Your task to perform on an android device: Open Google Image 0: 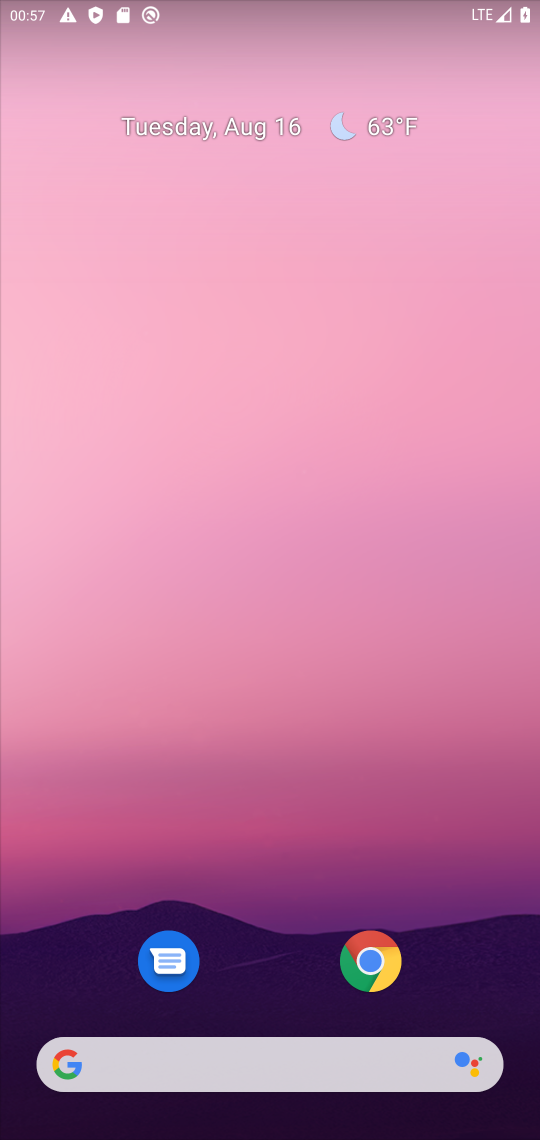
Step 0: press home button
Your task to perform on an android device: Open Google Image 1: 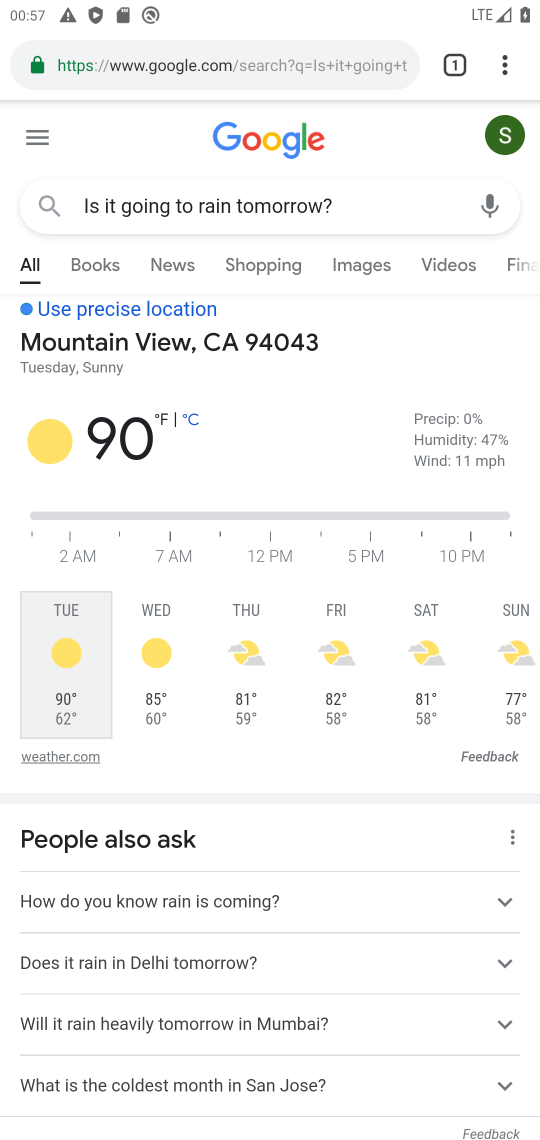
Step 1: press home button
Your task to perform on an android device: Open Google Image 2: 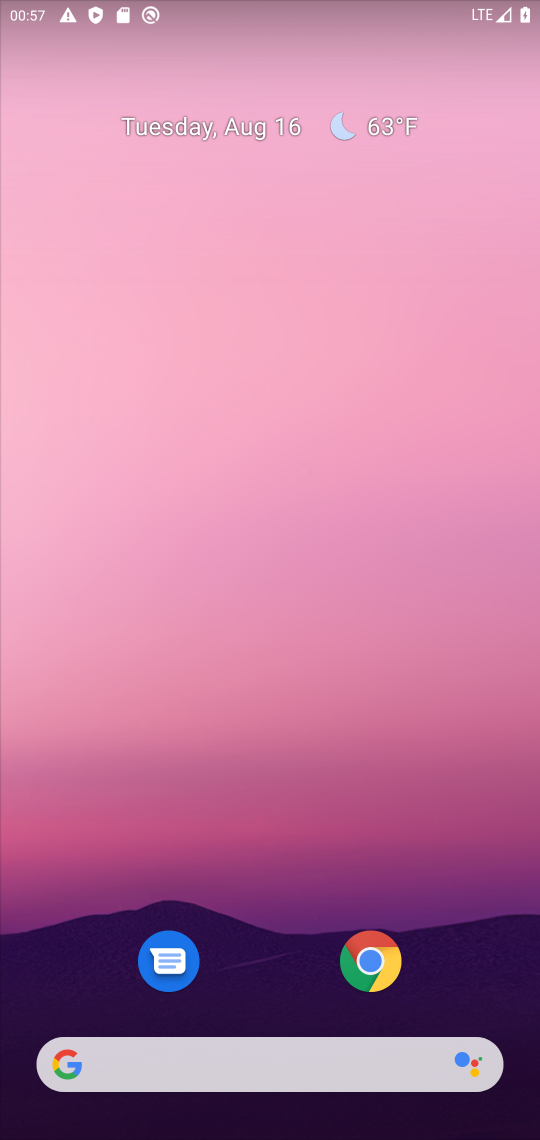
Step 2: press home button
Your task to perform on an android device: Open Google Image 3: 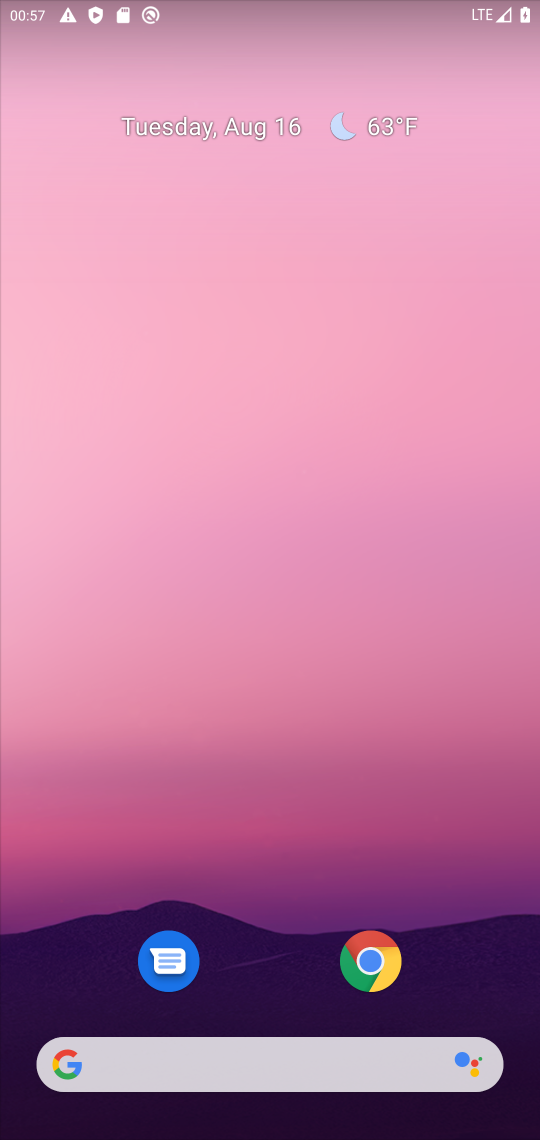
Step 3: drag from (313, 131) to (331, 0)
Your task to perform on an android device: Open Google Image 4: 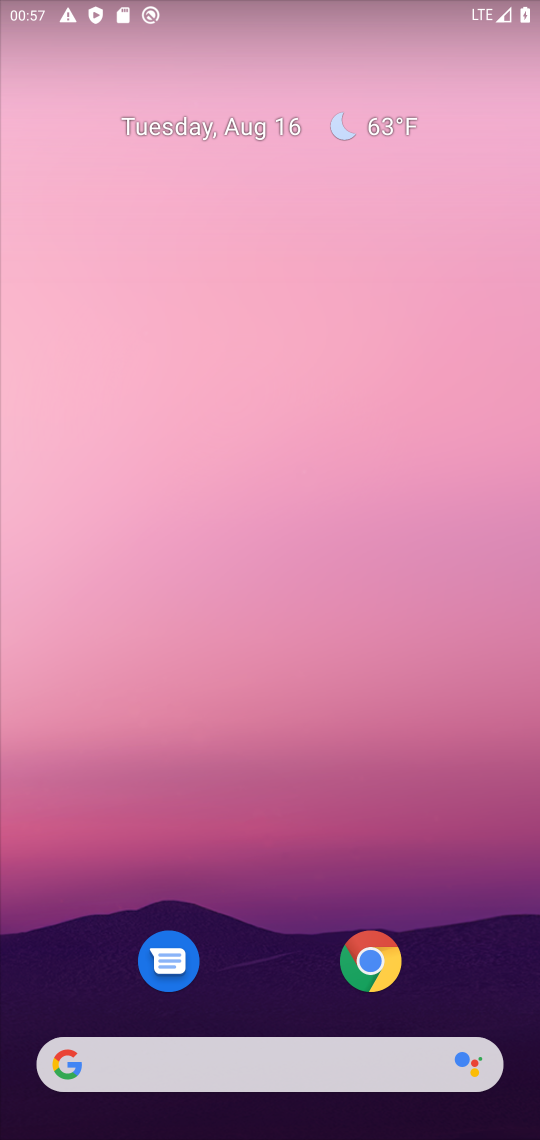
Step 4: drag from (266, 722) to (249, 3)
Your task to perform on an android device: Open Google Image 5: 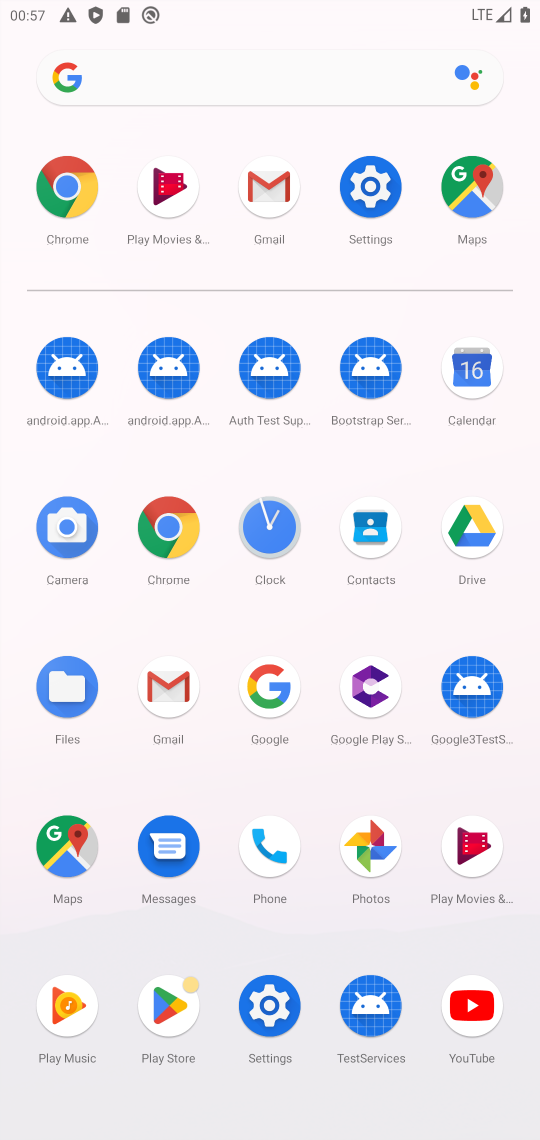
Step 5: click (289, 676)
Your task to perform on an android device: Open Google Image 6: 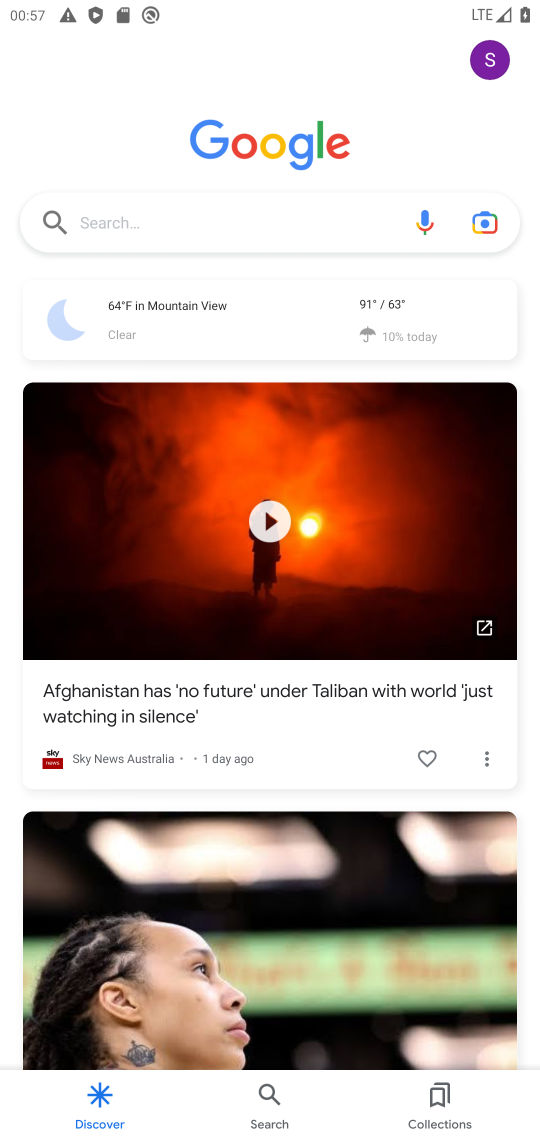
Step 6: task complete